Your task to perform on an android device: open device folders in google photos Image 0: 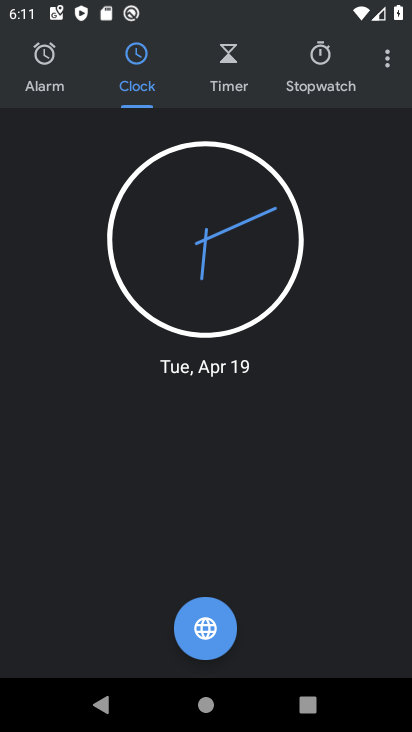
Step 0: press home button
Your task to perform on an android device: open device folders in google photos Image 1: 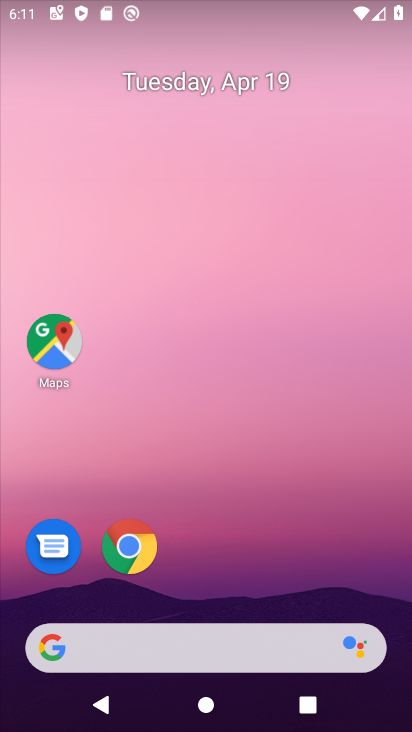
Step 1: drag from (222, 521) to (272, 81)
Your task to perform on an android device: open device folders in google photos Image 2: 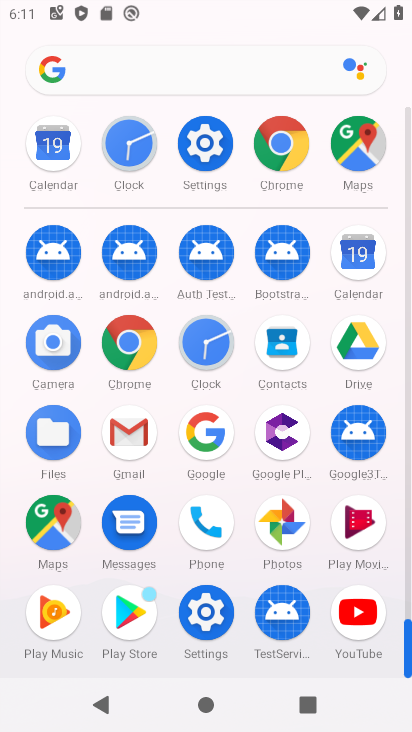
Step 2: click (281, 522)
Your task to perform on an android device: open device folders in google photos Image 3: 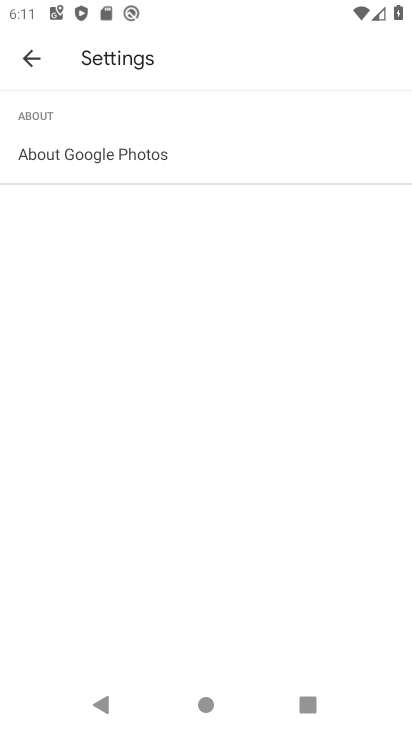
Step 3: click (42, 61)
Your task to perform on an android device: open device folders in google photos Image 4: 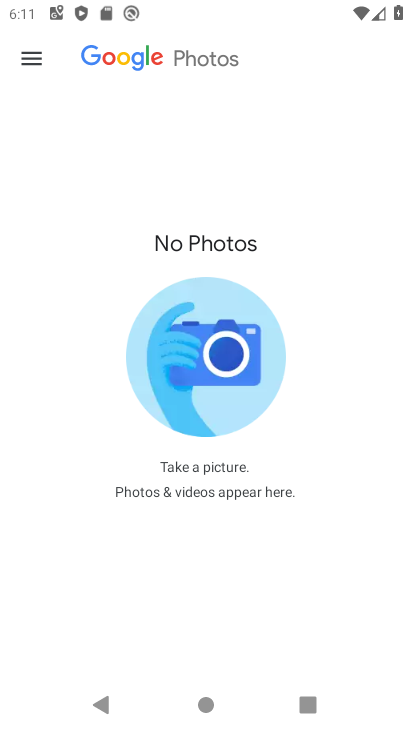
Step 4: click (38, 61)
Your task to perform on an android device: open device folders in google photos Image 5: 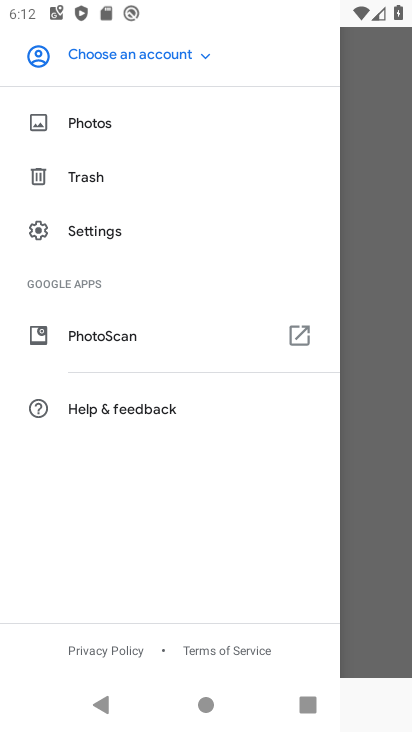
Step 5: drag from (166, 113) to (180, 501)
Your task to perform on an android device: open device folders in google photos Image 6: 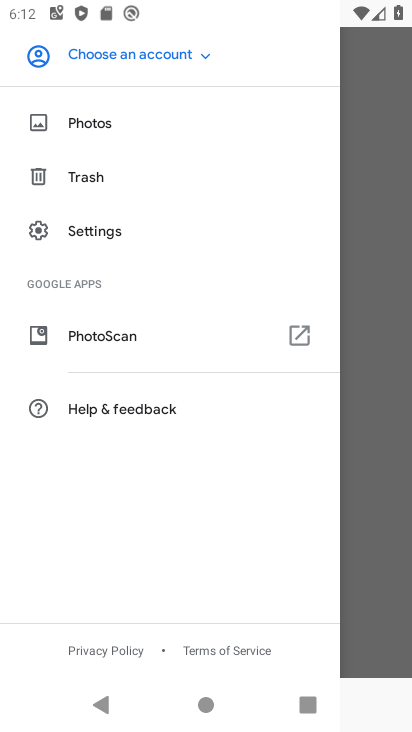
Step 6: click (97, 228)
Your task to perform on an android device: open device folders in google photos Image 7: 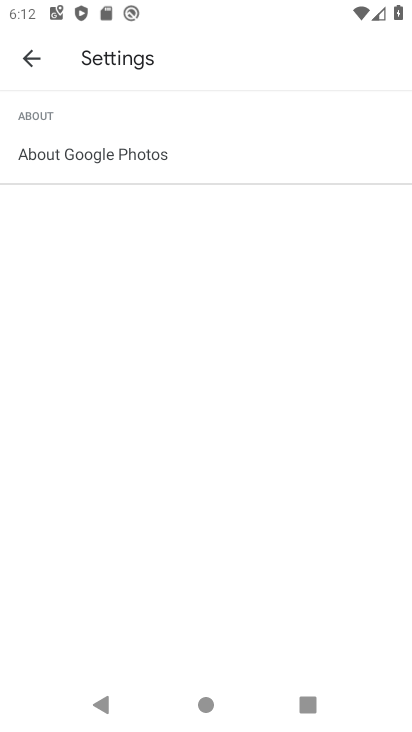
Step 7: click (29, 62)
Your task to perform on an android device: open device folders in google photos Image 8: 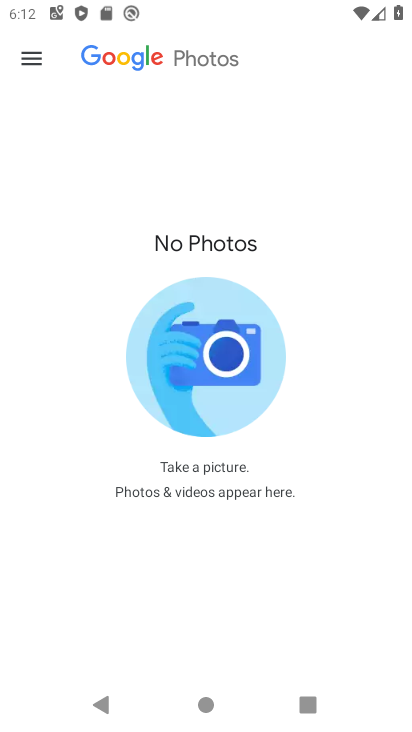
Step 8: click (37, 71)
Your task to perform on an android device: open device folders in google photos Image 9: 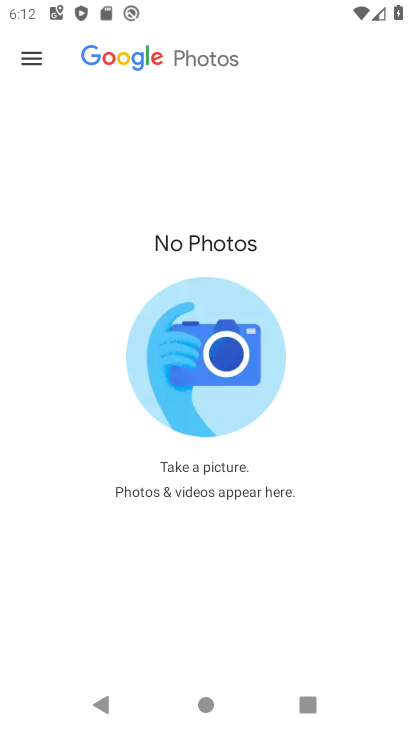
Step 9: click (33, 63)
Your task to perform on an android device: open device folders in google photos Image 10: 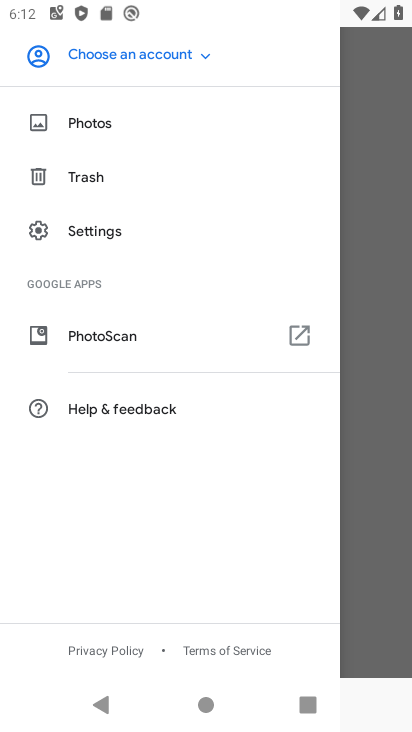
Step 10: task complete